Your task to perform on an android device: What is the recent news? Image 0: 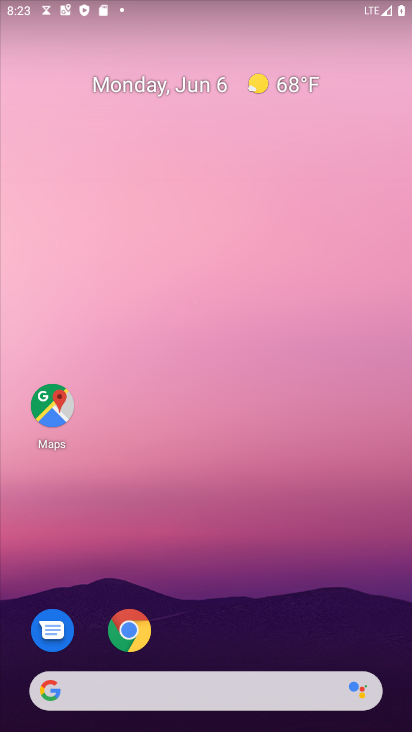
Step 0: drag from (251, 604) to (166, 102)
Your task to perform on an android device: What is the recent news? Image 1: 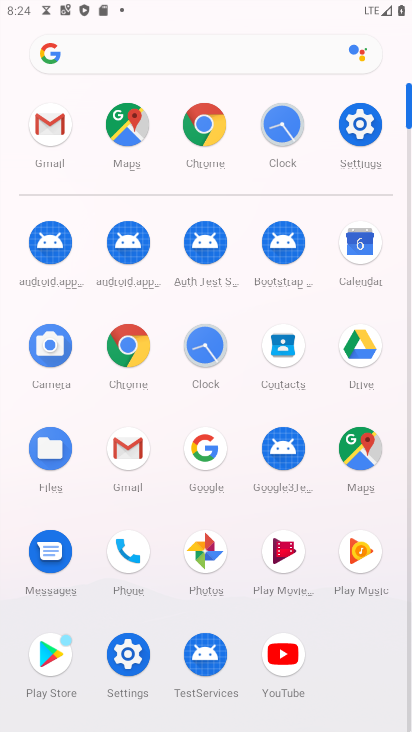
Step 1: click (204, 447)
Your task to perform on an android device: What is the recent news? Image 2: 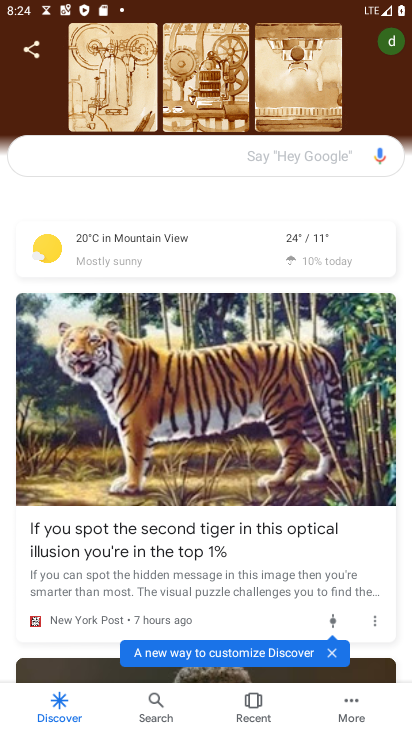
Step 2: click (303, 155)
Your task to perform on an android device: What is the recent news? Image 3: 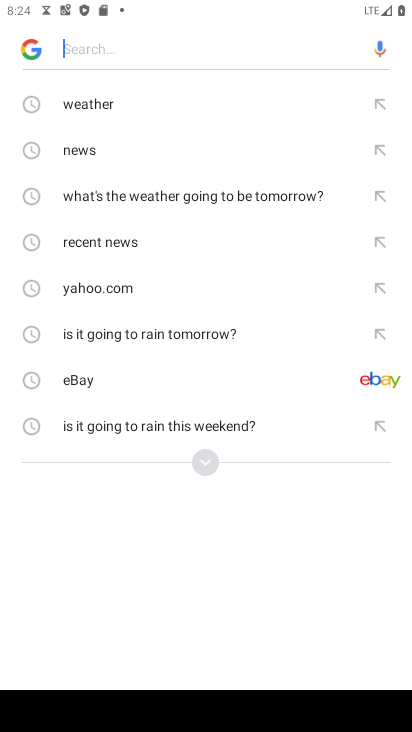
Step 3: type "recent news"
Your task to perform on an android device: What is the recent news? Image 4: 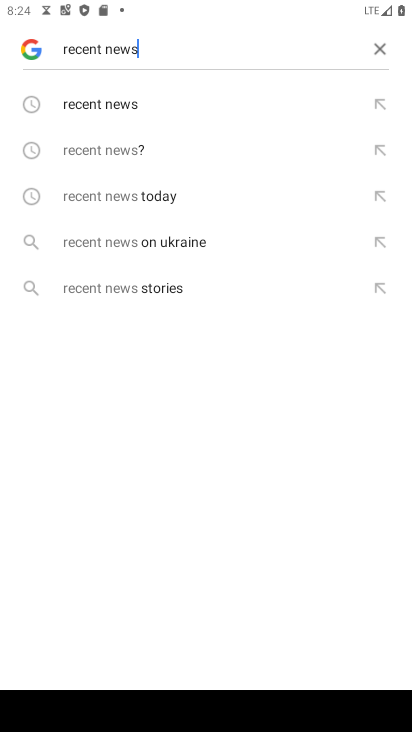
Step 4: click (109, 153)
Your task to perform on an android device: What is the recent news? Image 5: 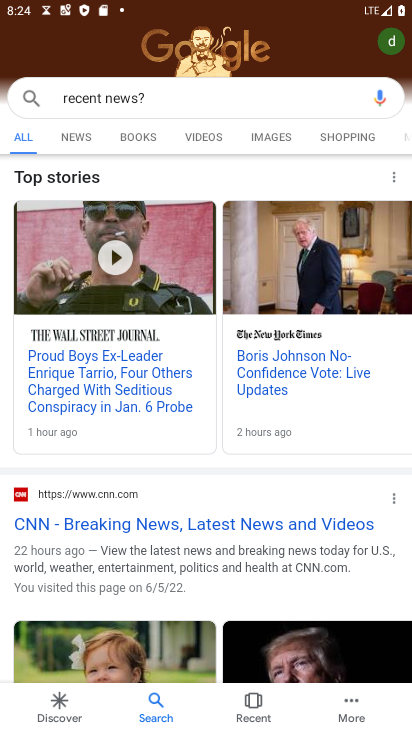
Step 5: task complete